Your task to perform on an android device: check data usage Image 0: 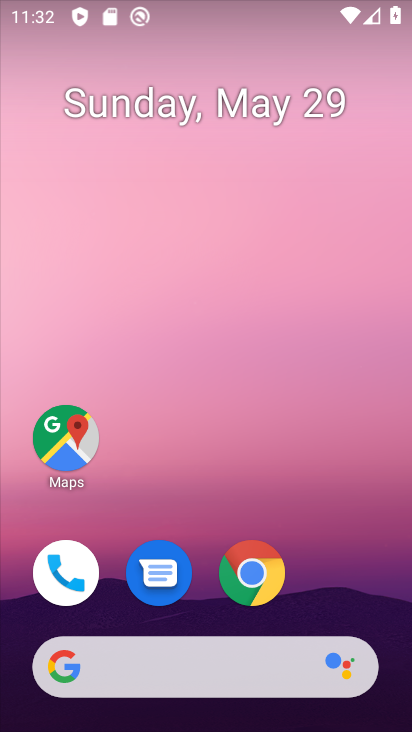
Step 0: drag from (361, 590) to (370, 147)
Your task to perform on an android device: check data usage Image 1: 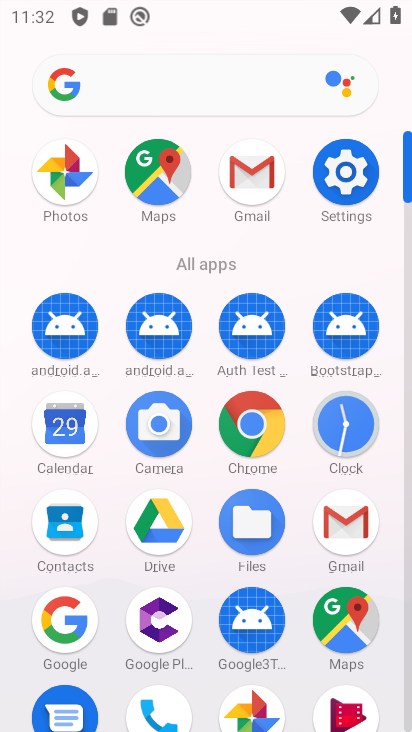
Step 1: click (347, 173)
Your task to perform on an android device: check data usage Image 2: 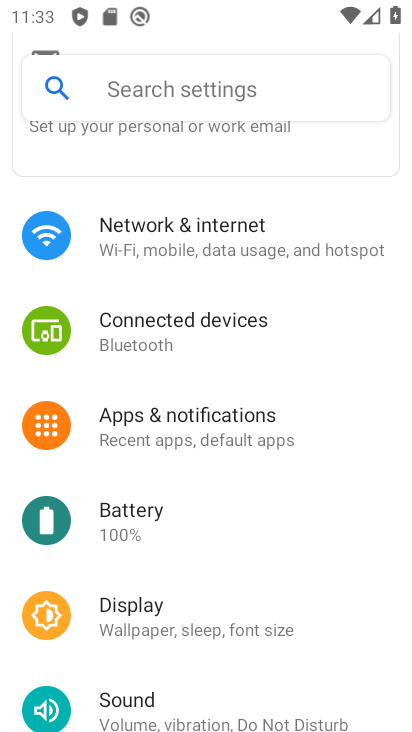
Step 2: click (176, 227)
Your task to perform on an android device: check data usage Image 3: 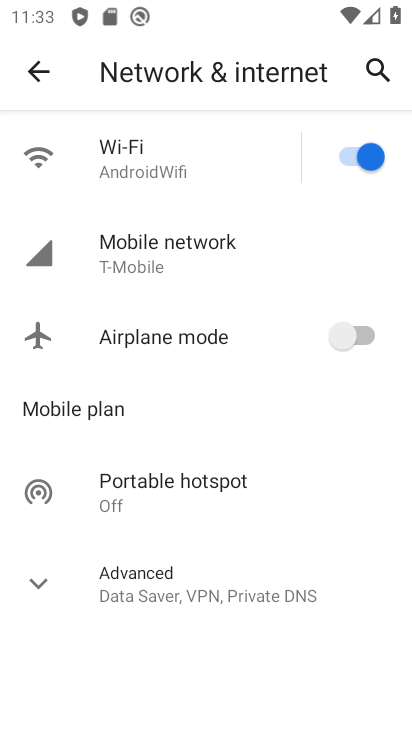
Step 3: click (154, 241)
Your task to perform on an android device: check data usage Image 4: 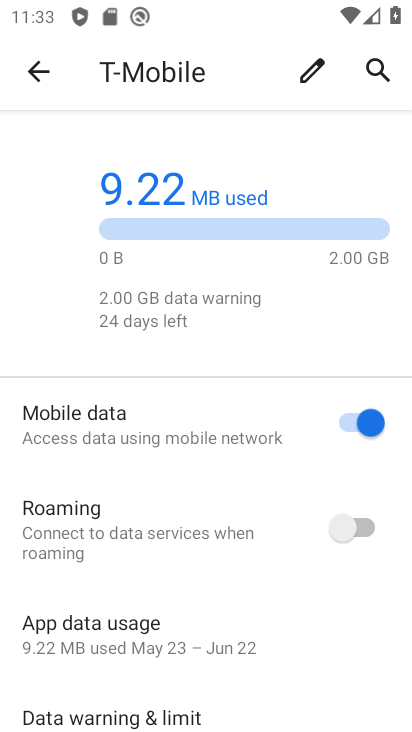
Step 4: task complete